Your task to perform on an android device: turn on javascript in the chrome app Image 0: 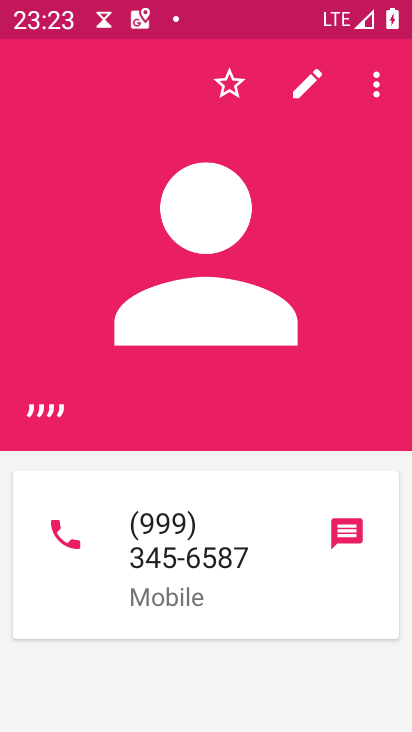
Step 0: press home button
Your task to perform on an android device: turn on javascript in the chrome app Image 1: 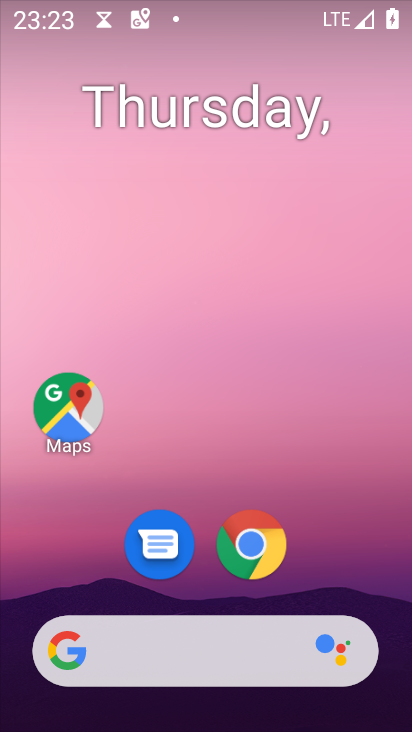
Step 1: click (231, 544)
Your task to perform on an android device: turn on javascript in the chrome app Image 2: 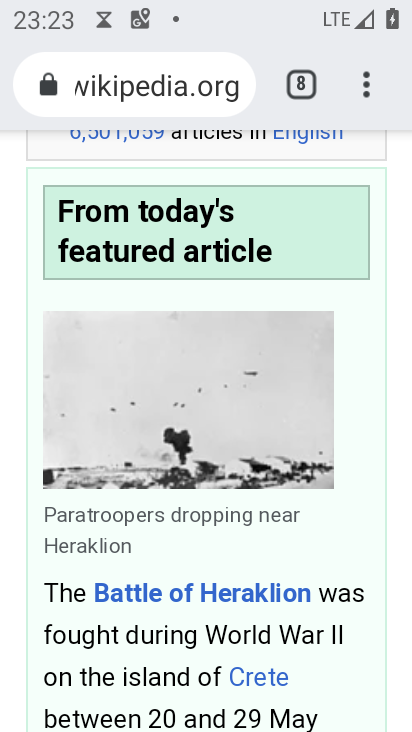
Step 2: click (363, 86)
Your task to perform on an android device: turn on javascript in the chrome app Image 3: 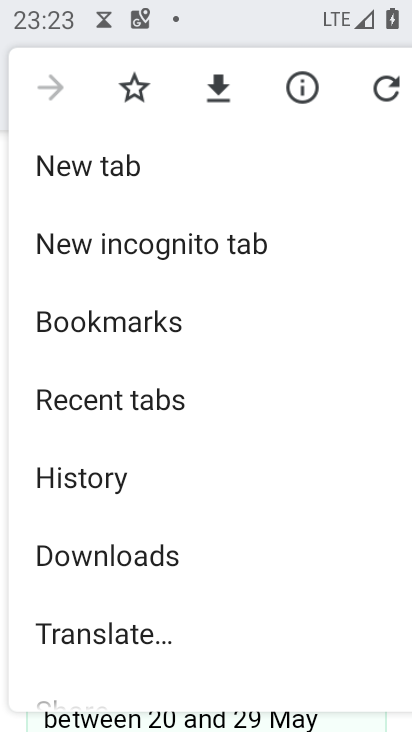
Step 3: drag from (146, 633) to (146, 232)
Your task to perform on an android device: turn on javascript in the chrome app Image 4: 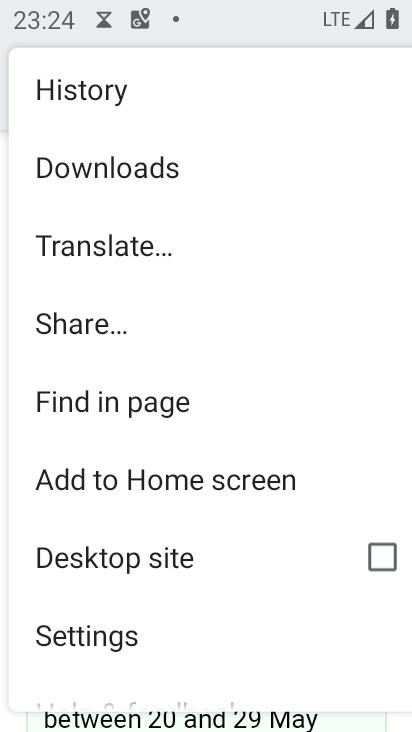
Step 4: click (119, 638)
Your task to perform on an android device: turn on javascript in the chrome app Image 5: 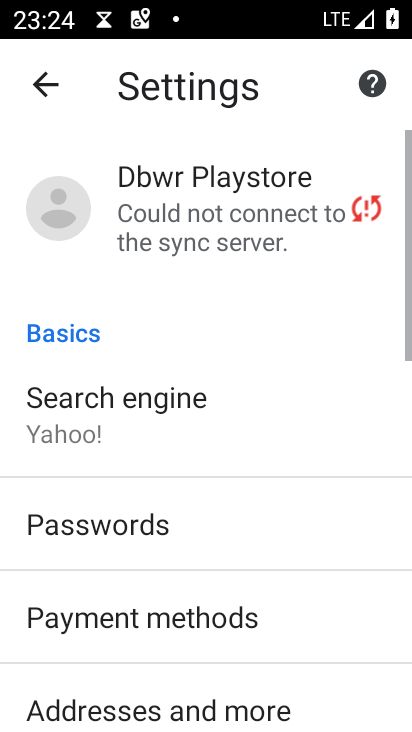
Step 5: drag from (121, 632) to (166, 262)
Your task to perform on an android device: turn on javascript in the chrome app Image 6: 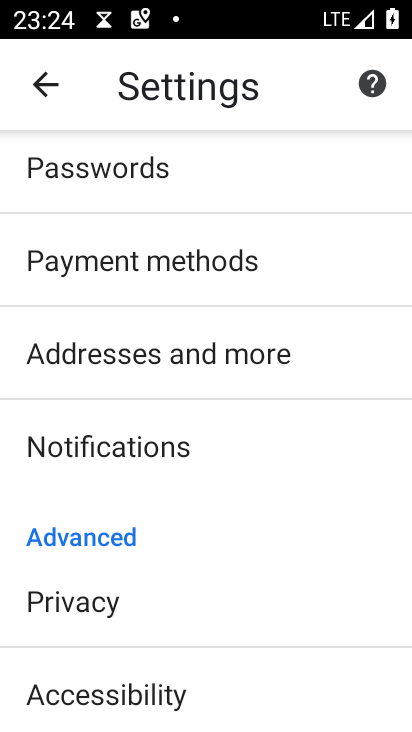
Step 6: drag from (191, 648) to (192, 328)
Your task to perform on an android device: turn on javascript in the chrome app Image 7: 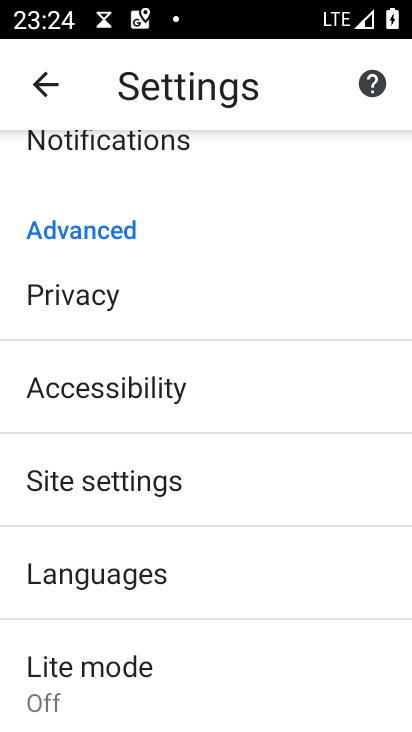
Step 7: click (123, 480)
Your task to perform on an android device: turn on javascript in the chrome app Image 8: 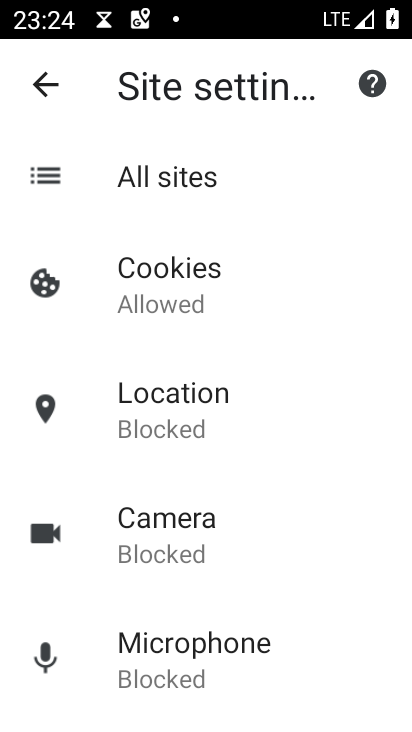
Step 8: drag from (164, 632) to (173, 320)
Your task to perform on an android device: turn on javascript in the chrome app Image 9: 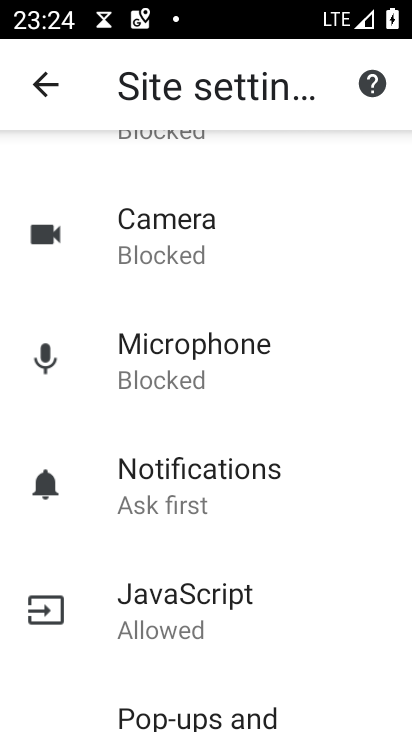
Step 9: click (164, 600)
Your task to perform on an android device: turn on javascript in the chrome app Image 10: 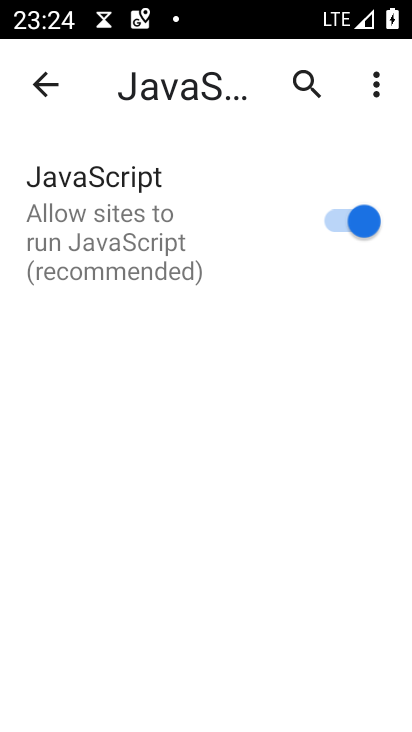
Step 10: task complete